Your task to perform on an android device: What is the recent news? Image 0: 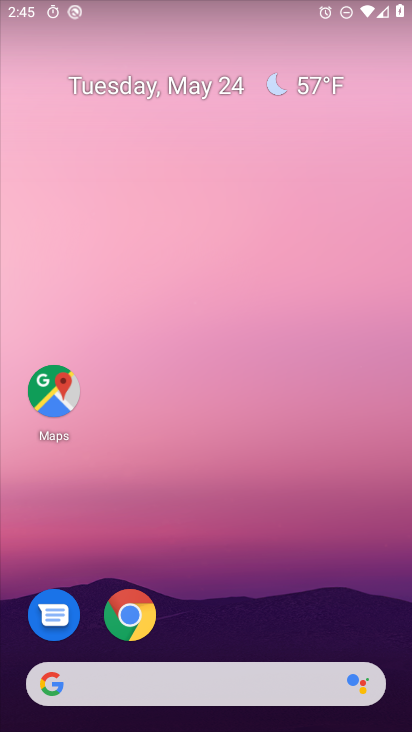
Step 0: drag from (192, 661) to (199, 213)
Your task to perform on an android device: What is the recent news? Image 1: 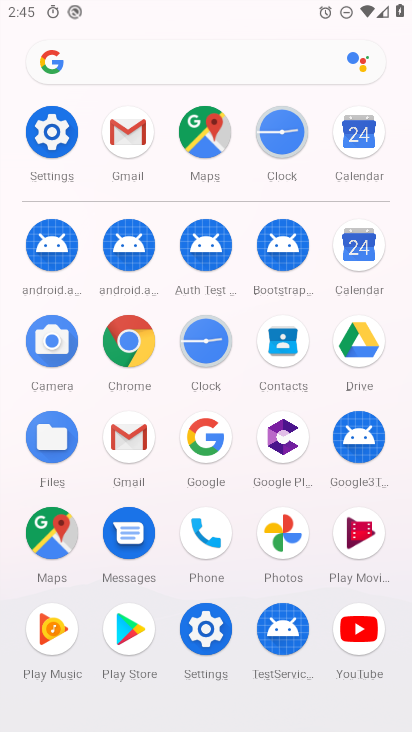
Step 1: click (199, 447)
Your task to perform on an android device: What is the recent news? Image 2: 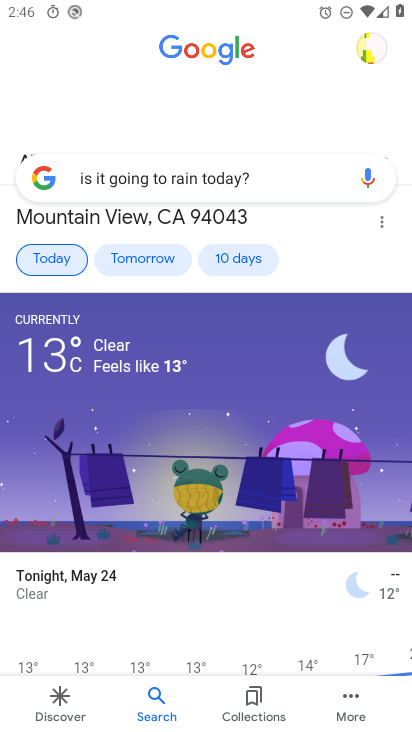
Step 2: click (276, 186)
Your task to perform on an android device: What is the recent news? Image 3: 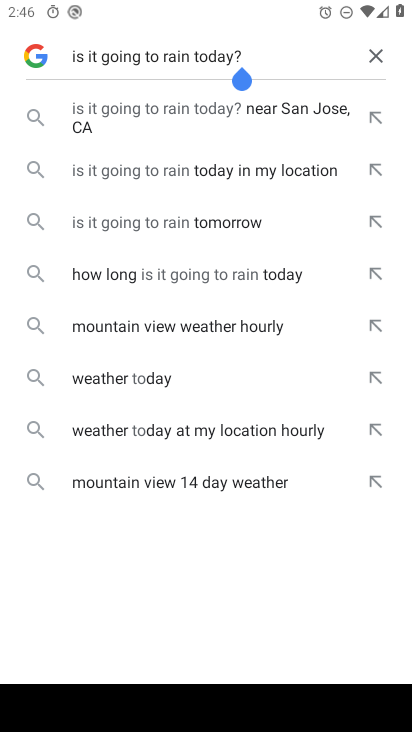
Step 3: click (366, 55)
Your task to perform on an android device: What is the recent news? Image 4: 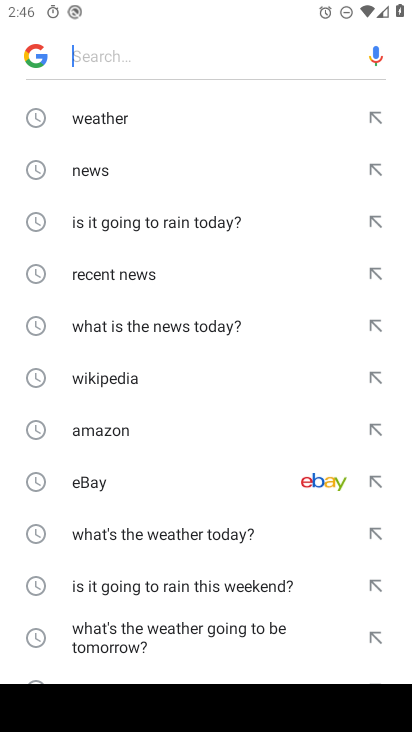
Step 4: click (149, 284)
Your task to perform on an android device: What is the recent news? Image 5: 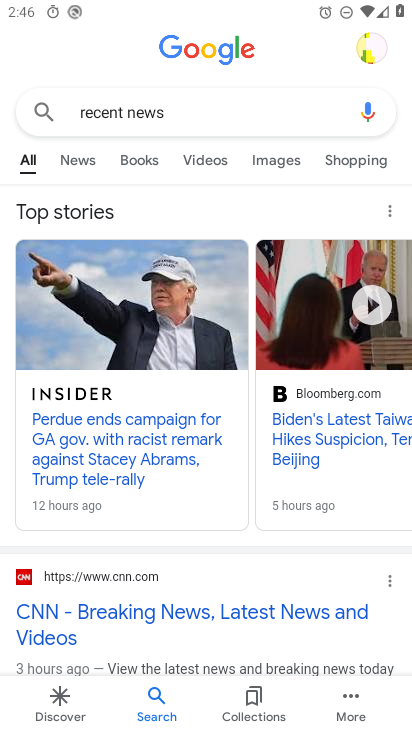
Step 5: task complete